Your task to perform on an android device: snooze an email in the gmail app Image 0: 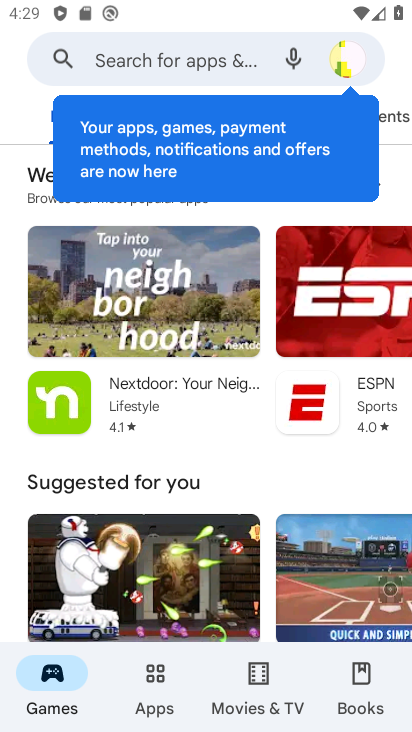
Step 0: press home button
Your task to perform on an android device: snooze an email in the gmail app Image 1: 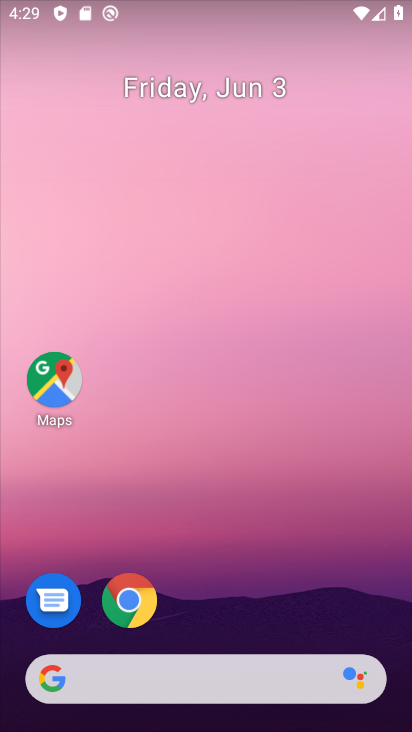
Step 1: drag from (214, 633) to (352, 7)
Your task to perform on an android device: snooze an email in the gmail app Image 2: 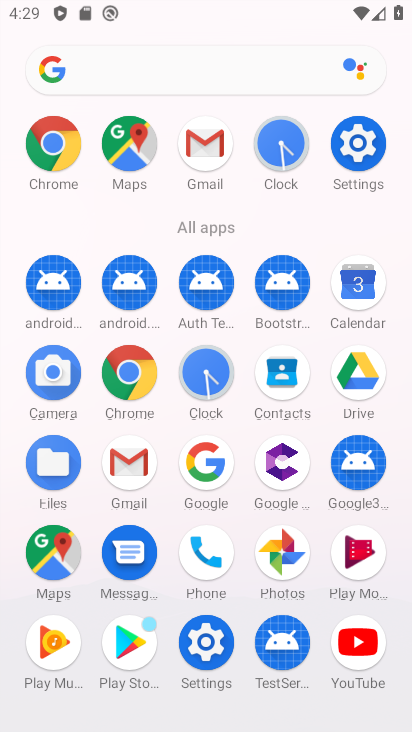
Step 2: click (140, 463)
Your task to perform on an android device: snooze an email in the gmail app Image 3: 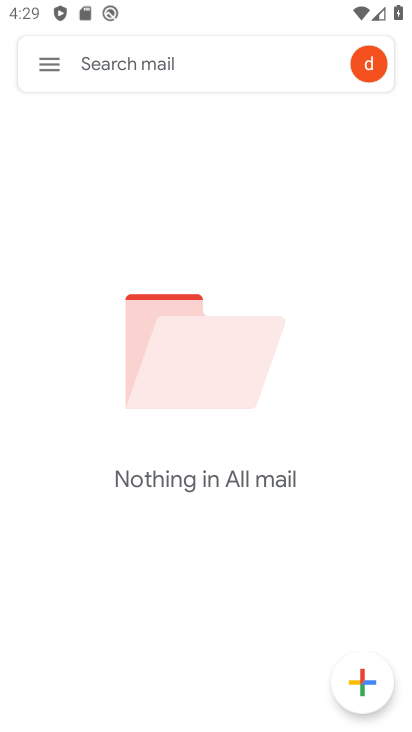
Step 3: task complete